Your task to perform on an android device: Open Google Chrome and open the bookmarks view Image 0: 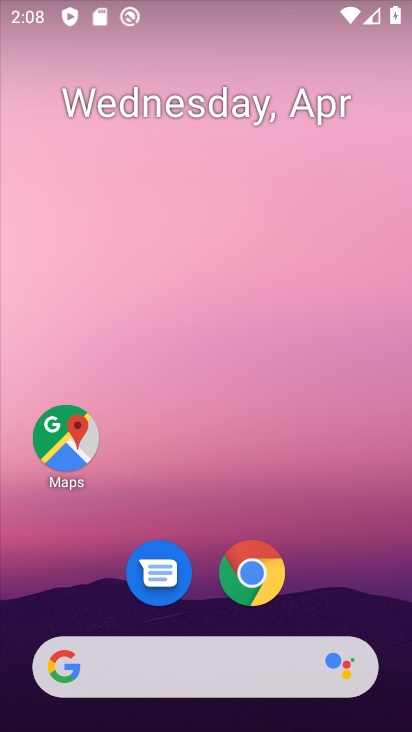
Step 0: drag from (325, 604) to (344, 134)
Your task to perform on an android device: Open Google Chrome and open the bookmarks view Image 1: 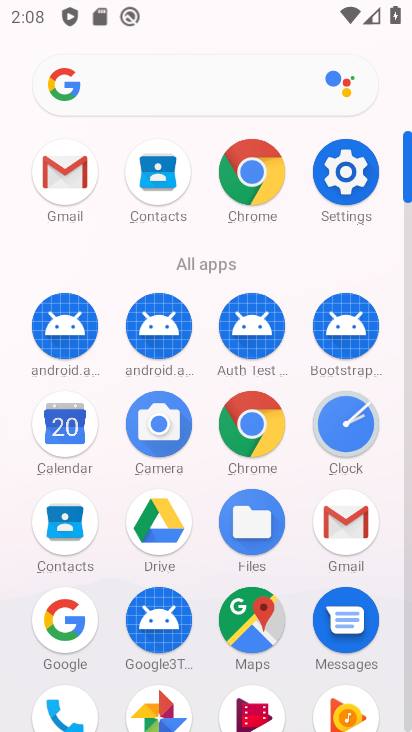
Step 1: click (232, 415)
Your task to perform on an android device: Open Google Chrome and open the bookmarks view Image 2: 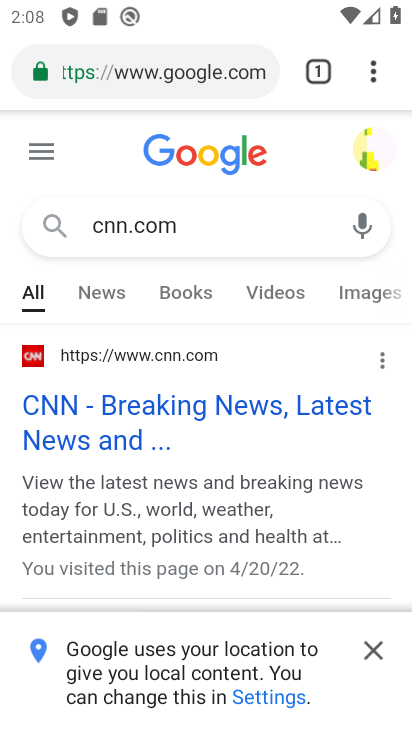
Step 2: click (373, 70)
Your task to perform on an android device: Open Google Chrome and open the bookmarks view Image 3: 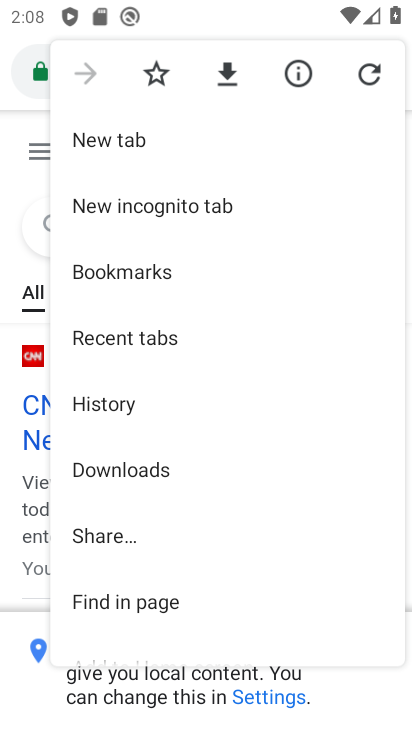
Step 3: click (129, 275)
Your task to perform on an android device: Open Google Chrome and open the bookmarks view Image 4: 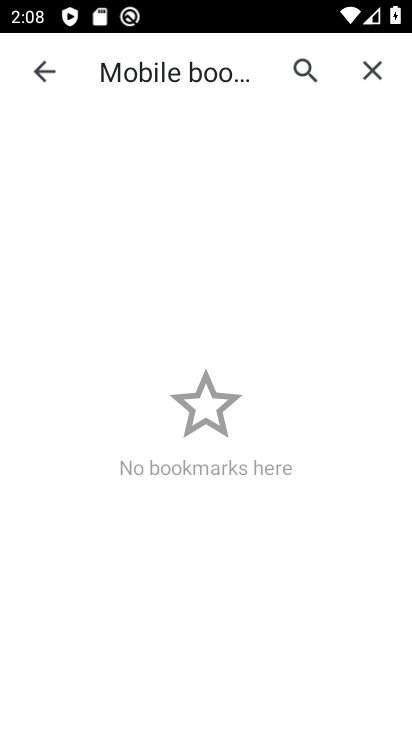
Step 4: task complete